Your task to perform on an android device: star an email in the gmail app Image 0: 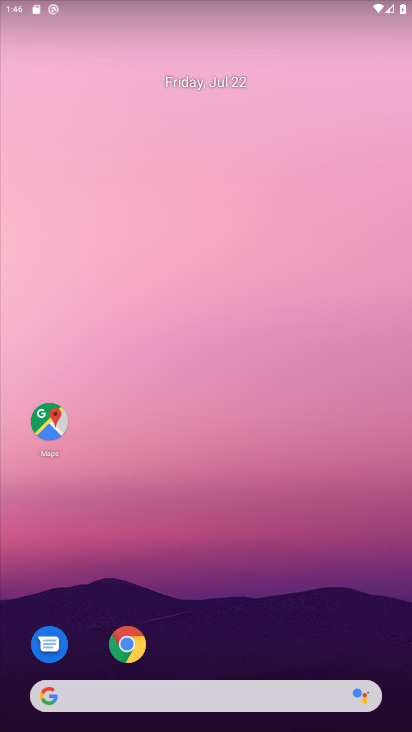
Step 0: drag from (255, 604) to (308, 134)
Your task to perform on an android device: star an email in the gmail app Image 1: 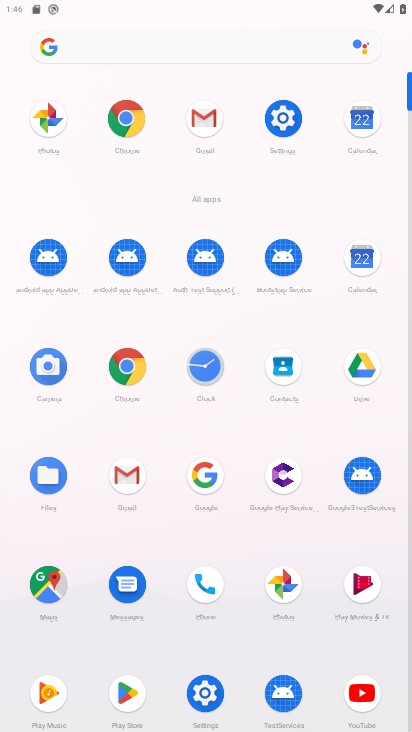
Step 1: click (195, 109)
Your task to perform on an android device: star an email in the gmail app Image 2: 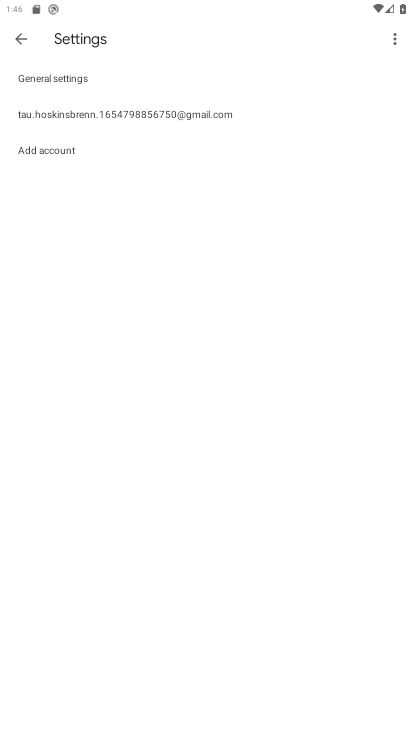
Step 2: click (29, 30)
Your task to perform on an android device: star an email in the gmail app Image 3: 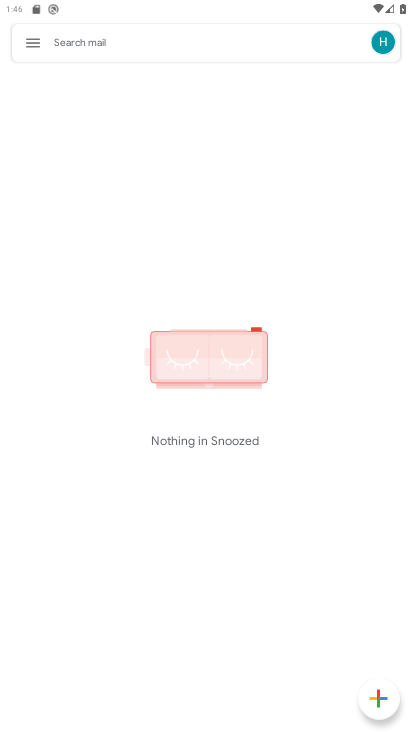
Step 3: click (34, 38)
Your task to perform on an android device: star an email in the gmail app Image 4: 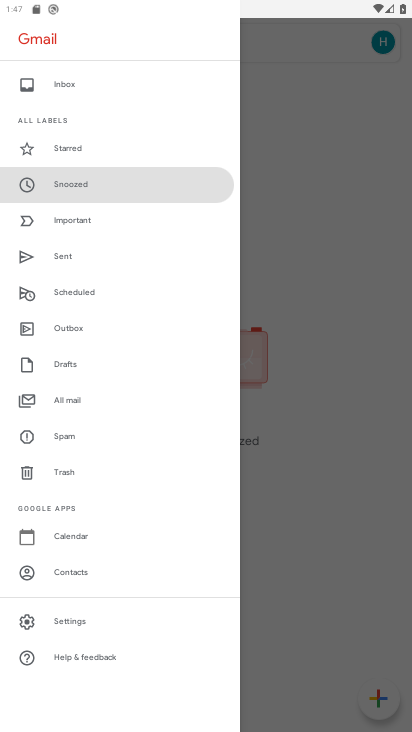
Step 4: click (79, 398)
Your task to perform on an android device: star an email in the gmail app Image 5: 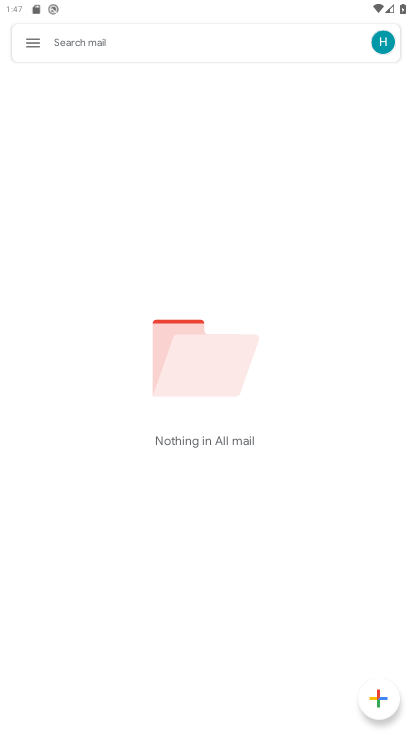
Step 5: task complete